Your task to perform on an android device: Open calendar and show me the second week of next month Image 0: 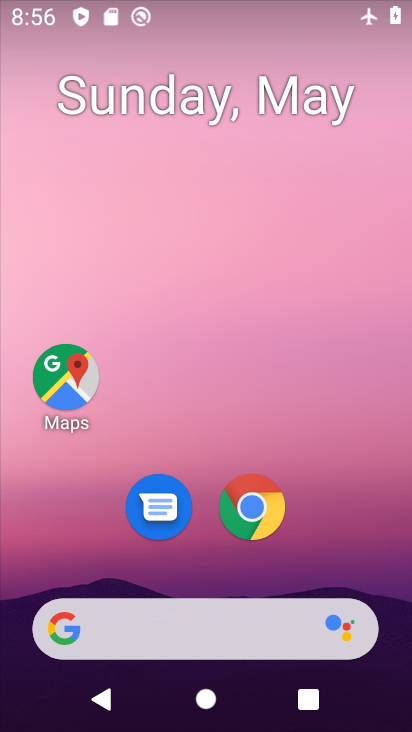
Step 0: drag from (169, 577) to (190, 4)
Your task to perform on an android device: Open calendar and show me the second week of next month Image 1: 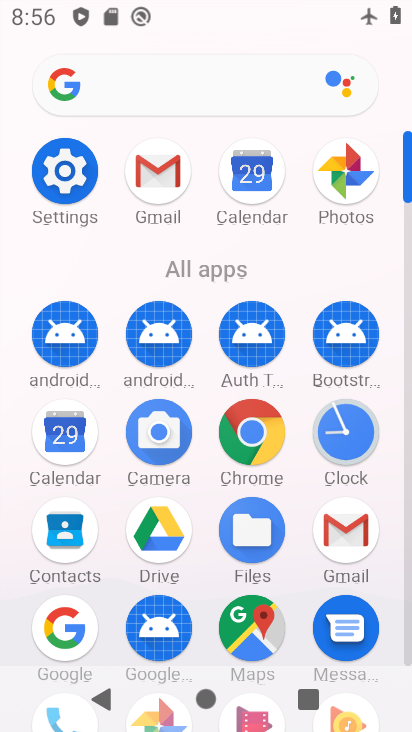
Step 1: click (73, 449)
Your task to perform on an android device: Open calendar and show me the second week of next month Image 2: 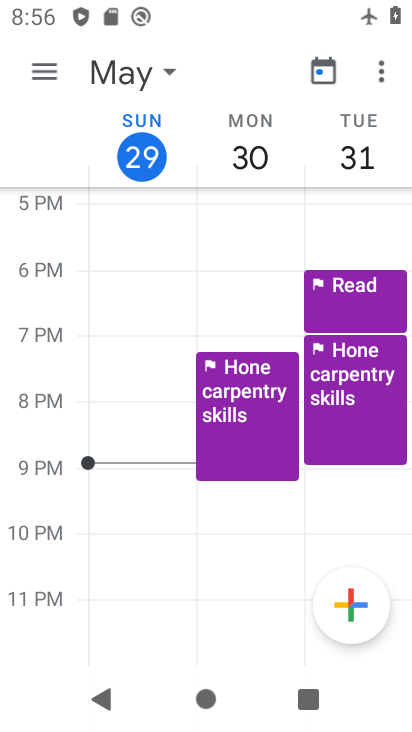
Step 2: click (37, 55)
Your task to perform on an android device: Open calendar and show me the second week of next month Image 3: 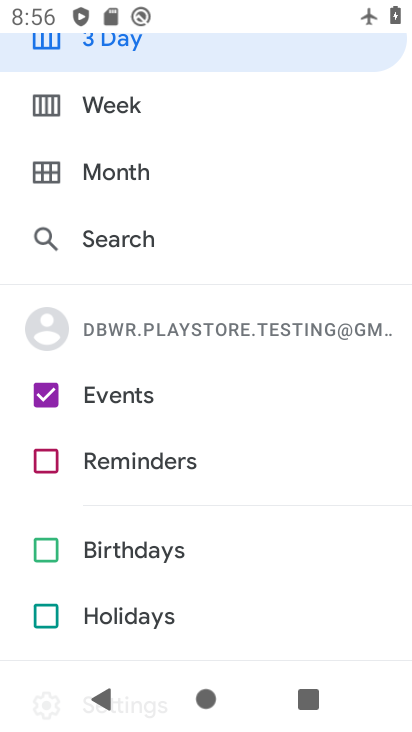
Step 3: click (128, 119)
Your task to perform on an android device: Open calendar and show me the second week of next month Image 4: 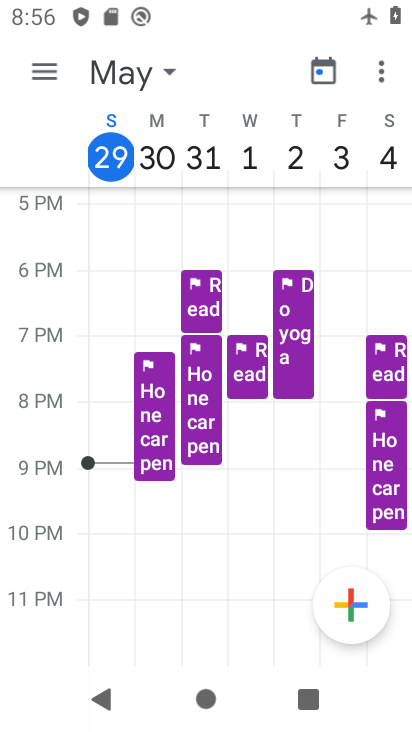
Step 4: task complete